Your task to perform on an android device: open app "Facebook Messenger" Image 0: 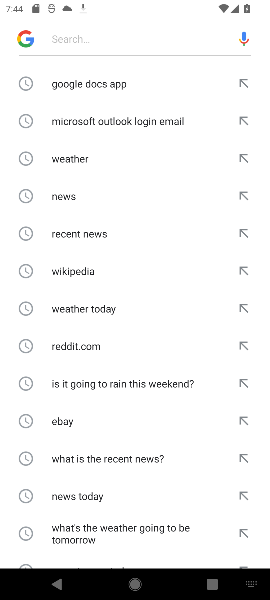
Step 0: press home button
Your task to perform on an android device: open app "Facebook Messenger" Image 1: 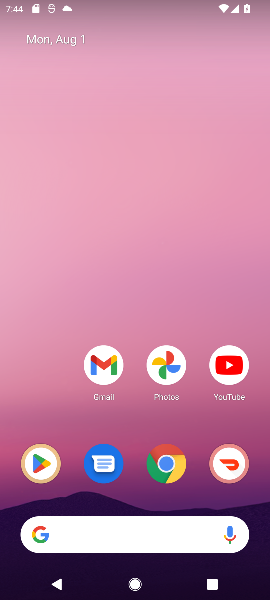
Step 1: drag from (63, 507) to (132, 20)
Your task to perform on an android device: open app "Facebook Messenger" Image 2: 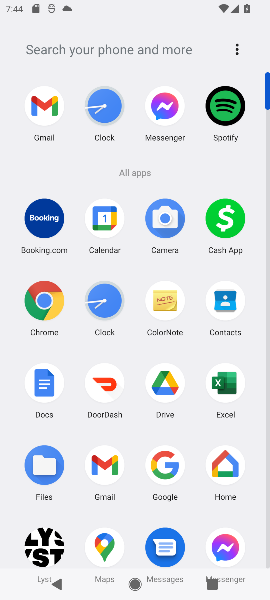
Step 2: click (165, 93)
Your task to perform on an android device: open app "Facebook Messenger" Image 3: 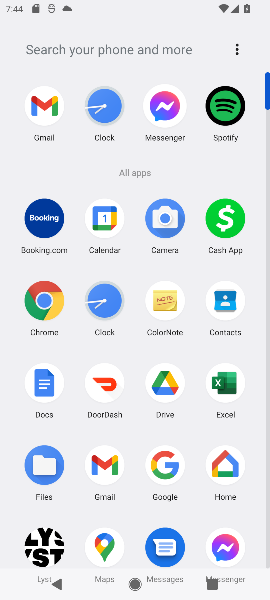
Step 3: task complete